Your task to perform on an android device: Open my contact list Image 0: 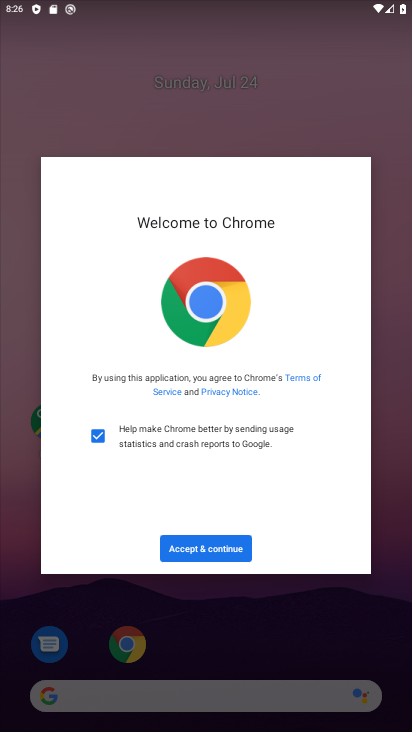
Step 0: press home button
Your task to perform on an android device: Open my contact list Image 1: 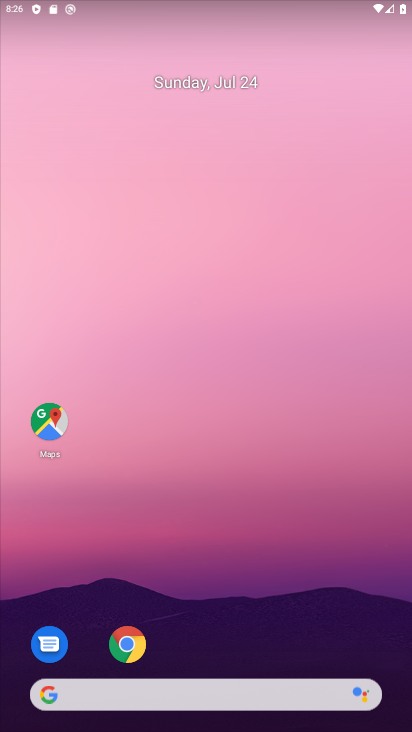
Step 1: drag from (373, 639) to (312, 84)
Your task to perform on an android device: Open my contact list Image 2: 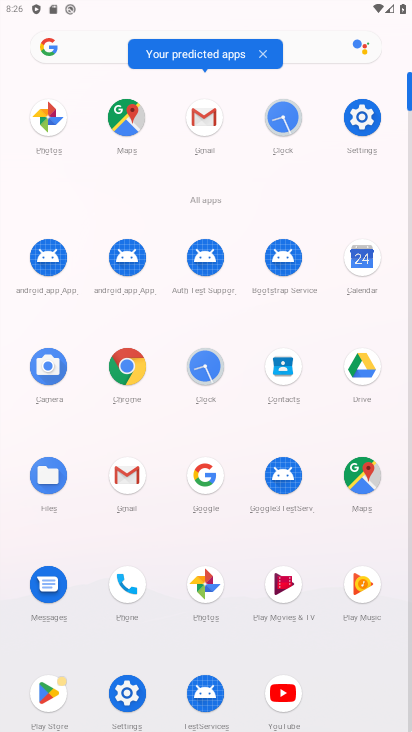
Step 2: click (284, 367)
Your task to perform on an android device: Open my contact list Image 3: 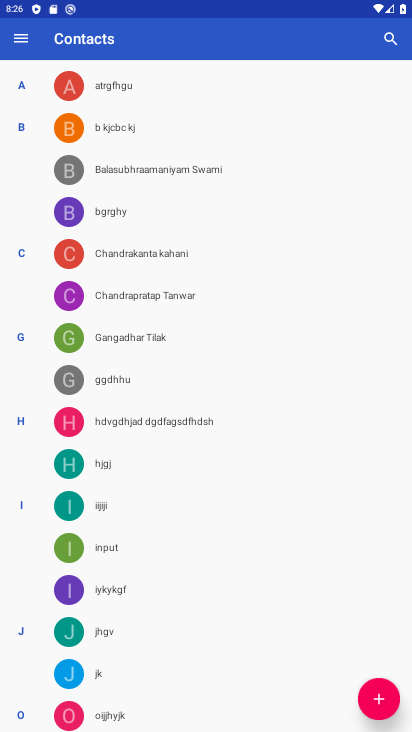
Step 3: task complete